Your task to perform on an android device: Turn off the flashlight Image 0: 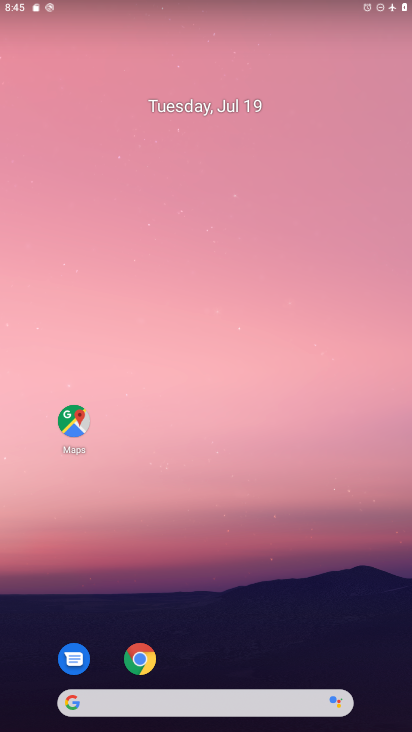
Step 0: drag from (229, 494) to (222, 138)
Your task to perform on an android device: Turn off the flashlight Image 1: 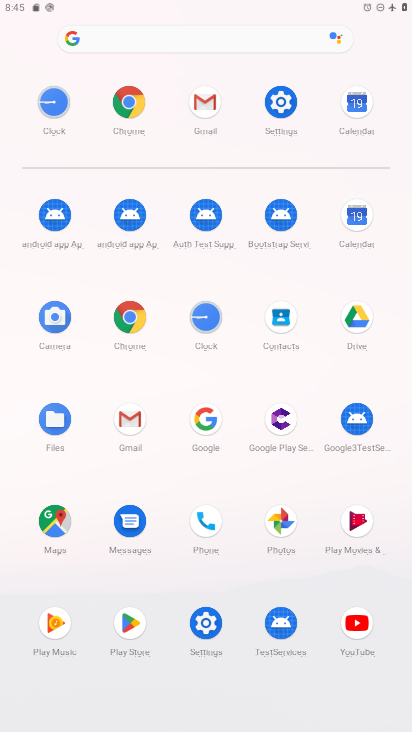
Step 1: click (276, 114)
Your task to perform on an android device: Turn off the flashlight Image 2: 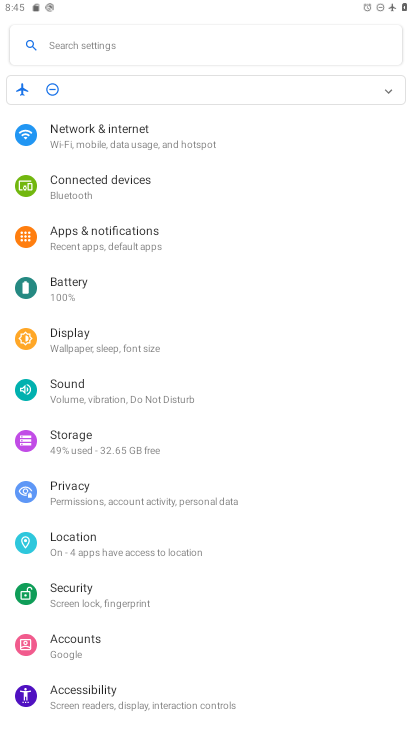
Step 2: task complete